Your task to perform on an android device: Show me the alarms in the clock app Image 0: 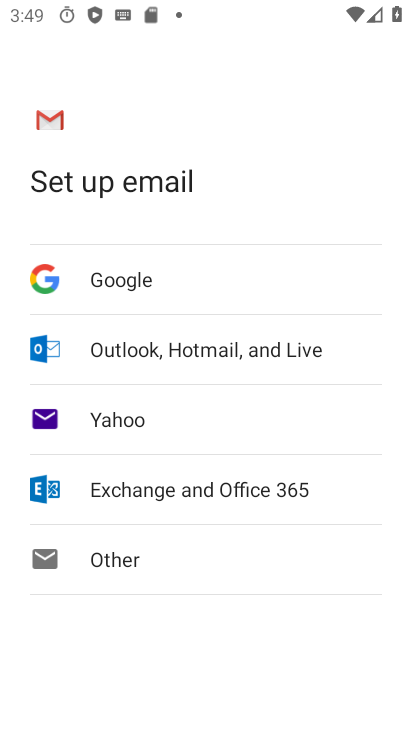
Step 0: press home button
Your task to perform on an android device: Show me the alarms in the clock app Image 1: 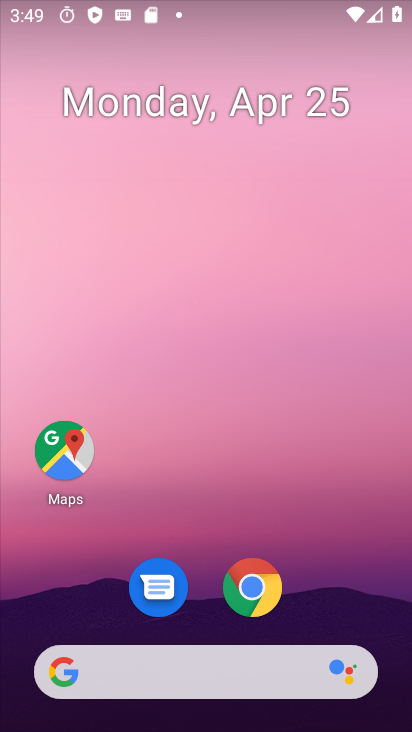
Step 1: drag from (337, 521) to (194, 28)
Your task to perform on an android device: Show me the alarms in the clock app Image 2: 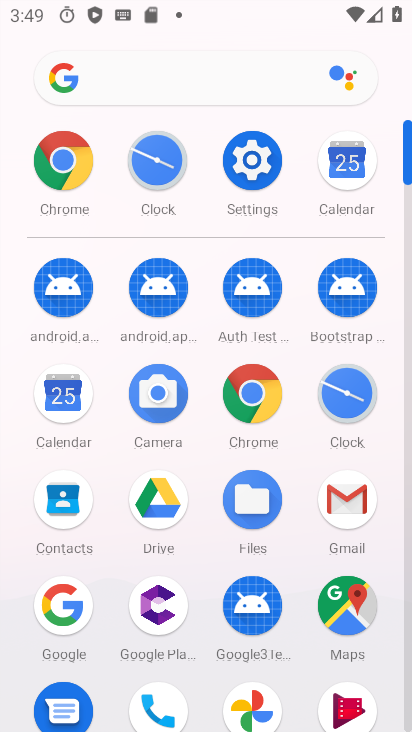
Step 2: click (338, 382)
Your task to perform on an android device: Show me the alarms in the clock app Image 3: 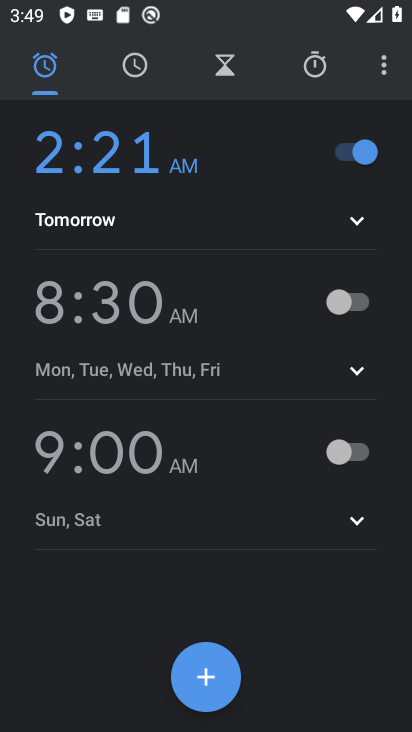
Step 3: click (388, 65)
Your task to perform on an android device: Show me the alarms in the clock app Image 4: 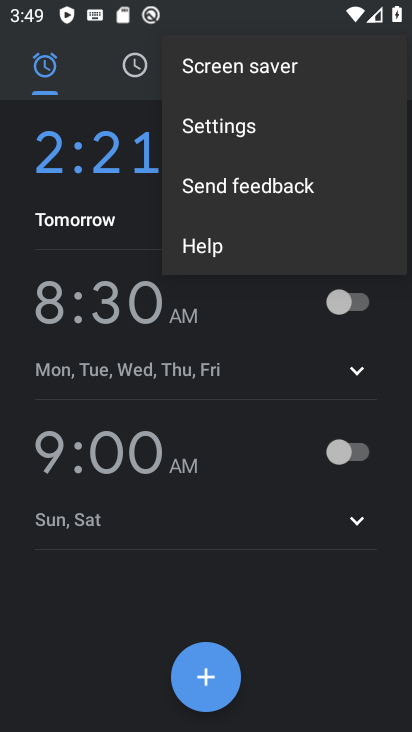
Step 4: click (109, 92)
Your task to perform on an android device: Show me the alarms in the clock app Image 5: 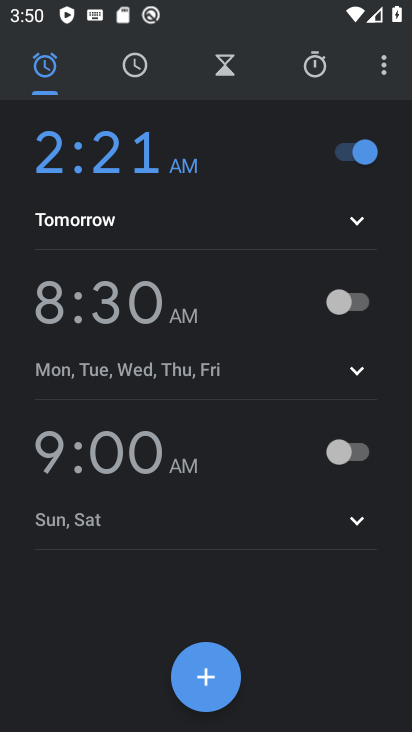
Step 5: task complete